Your task to perform on an android device: turn smart compose on in the gmail app Image 0: 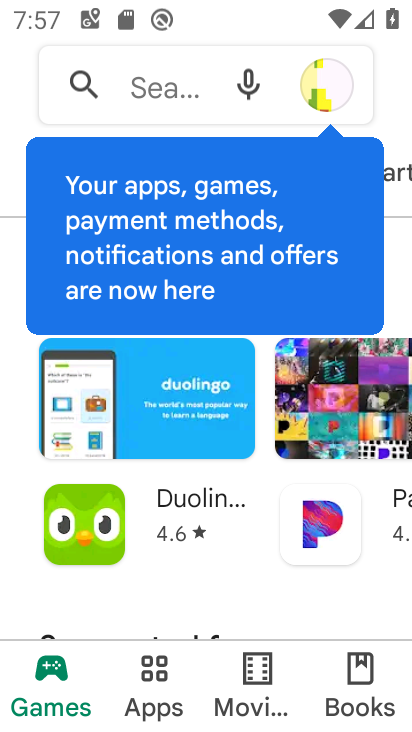
Step 0: press home button
Your task to perform on an android device: turn smart compose on in the gmail app Image 1: 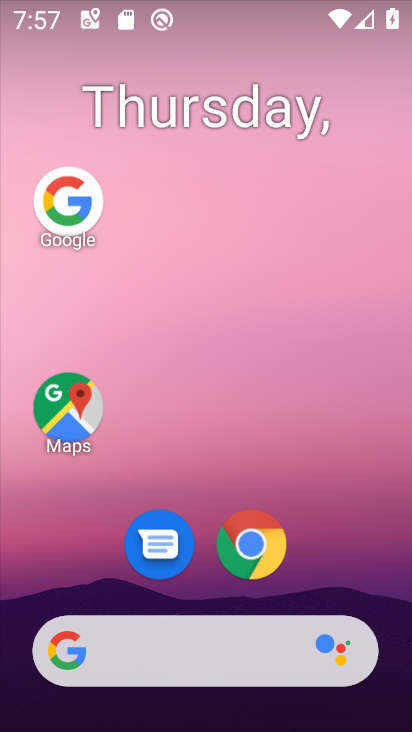
Step 1: drag from (250, 704) to (287, 92)
Your task to perform on an android device: turn smart compose on in the gmail app Image 2: 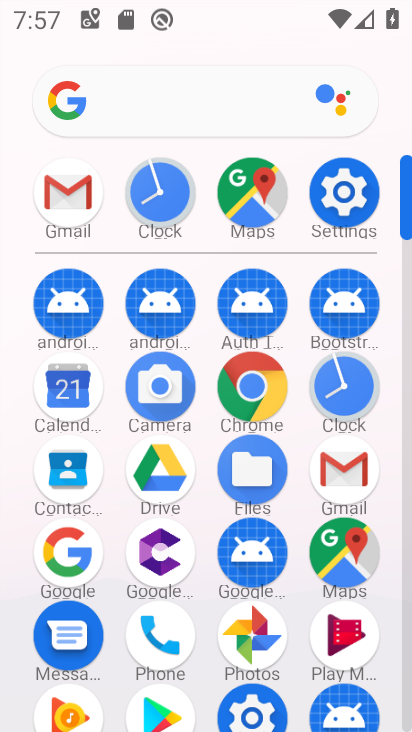
Step 2: click (82, 186)
Your task to perform on an android device: turn smart compose on in the gmail app Image 3: 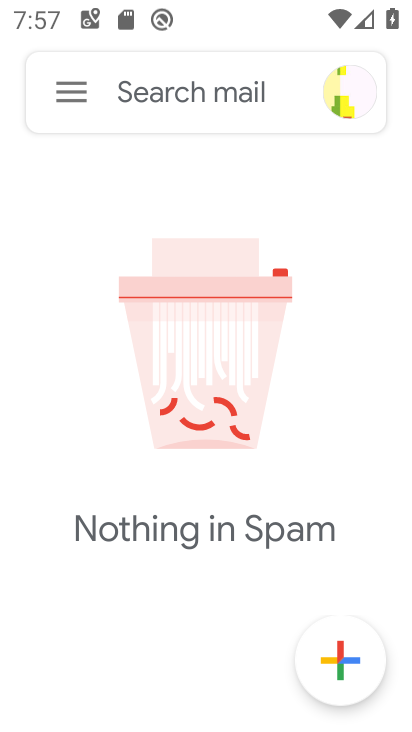
Step 3: click (82, 113)
Your task to perform on an android device: turn smart compose on in the gmail app Image 4: 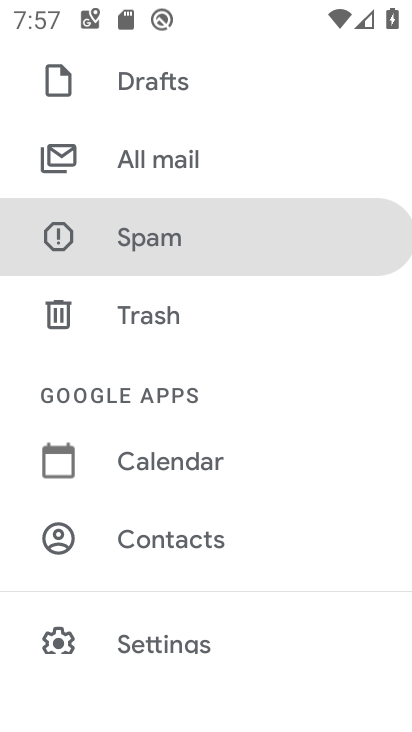
Step 4: click (169, 649)
Your task to perform on an android device: turn smart compose on in the gmail app Image 5: 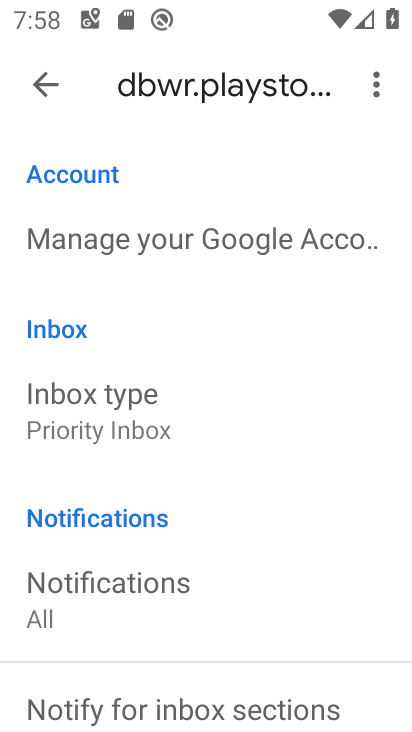
Step 5: drag from (175, 594) to (211, 213)
Your task to perform on an android device: turn smart compose on in the gmail app Image 6: 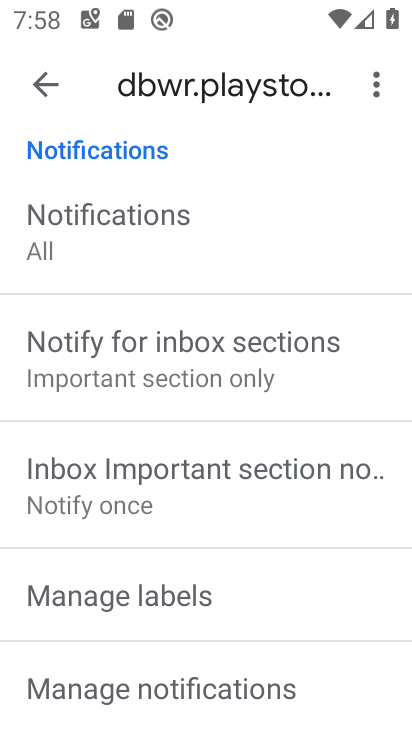
Step 6: drag from (114, 599) to (161, 338)
Your task to perform on an android device: turn smart compose on in the gmail app Image 7: 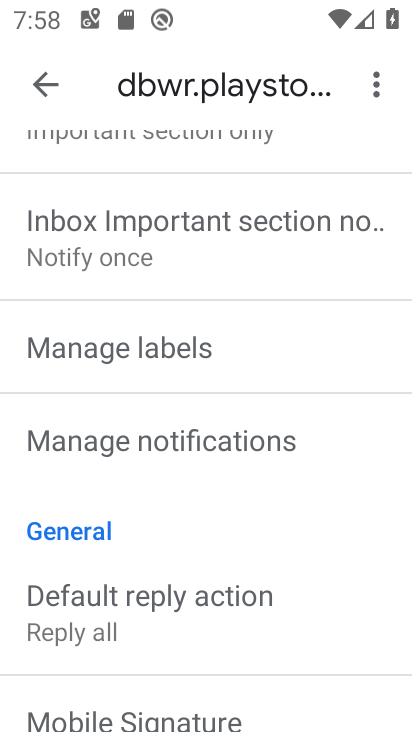
Step 7: drag from (155, 674) to (211, 163)
Your task to perform on an android device: turn smart compose on in the gmail app Image 8: 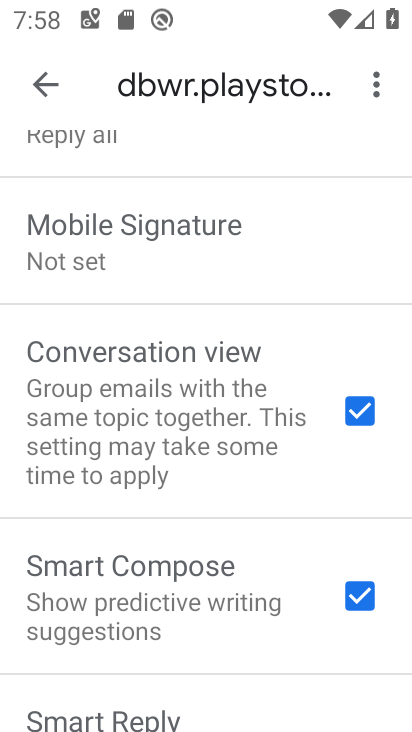
Step 8: drag from (268, 677) to (275, 586)
Your task to perform on an android device: turn smart compose on in the gmail app Image 9: 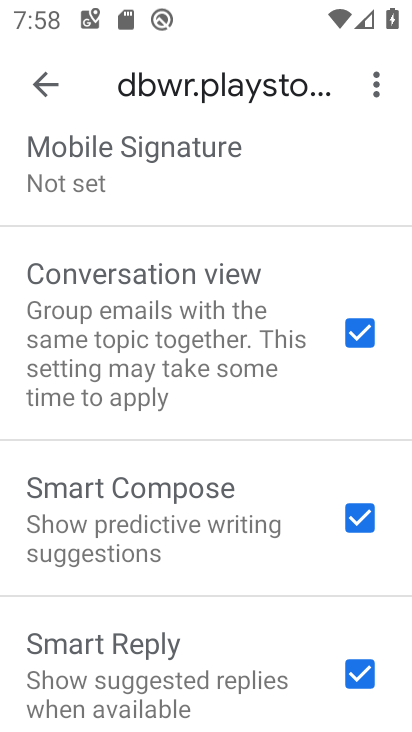
Step 9: click (358, 673)
Your task to perform on an android device: turn smart compose on in the gmail app Image 10: 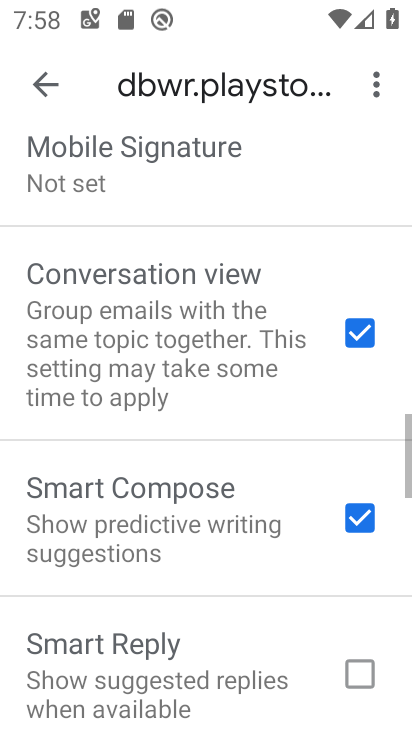
Step 10: click (358, 673)
Your task to perform on an android device: turn smart compose on in the gmail app Image 11: 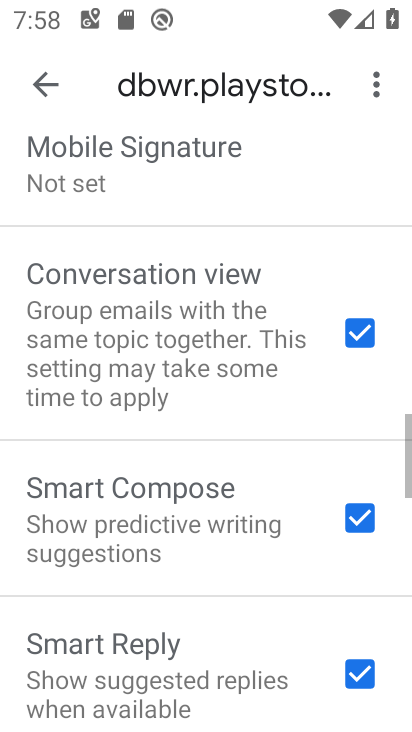
Step 11: task complete